Your task to perform on an android device: set default search engine in the chrome app Image 0: 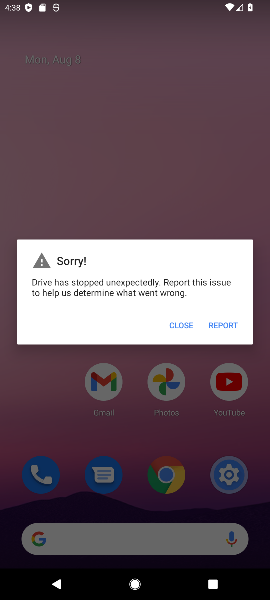
Step 0: press home button
Your task to perform on an android device: set default search engine in the chrome app Image 1: 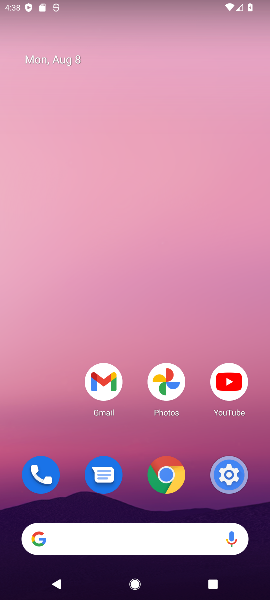
Step 1: drag from (62, 431) to (50, 181)
Your task to perform on an android device: set default search engine in the chrome app Image 2: 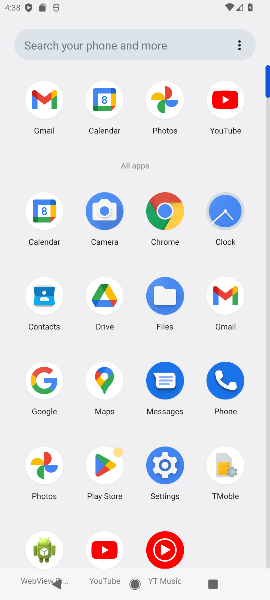
Step 2: click (159, 221)
Your task to perform on an android device: set default search engine in the chrome app Image 3: 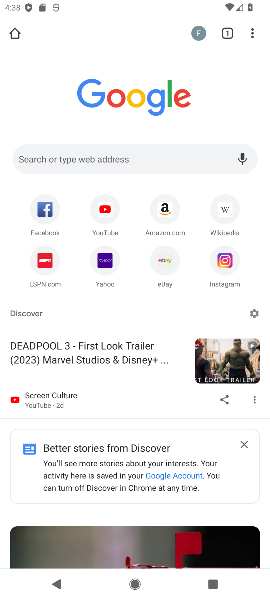
Step 3: click (251, 35)
Your task to perform on an android device: set default search engine in the chrome app Image 4: 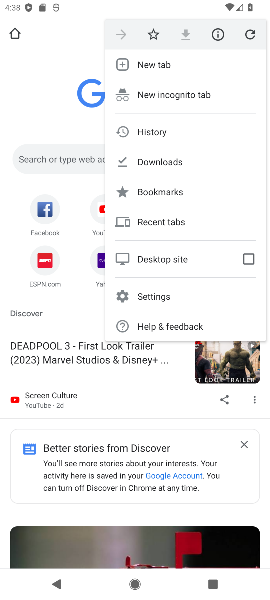
Step 4: click (195, 298)
Your task to perform on an android device: set default search engine in the chrome app Image 5: 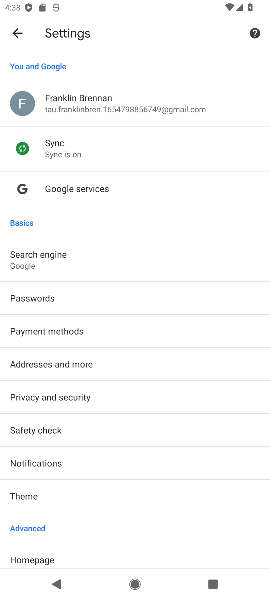
Step 5: drag from (195, 391) to (206, 305)
Your task to perform on an android device: set default search engine in the chrome app Image 6: 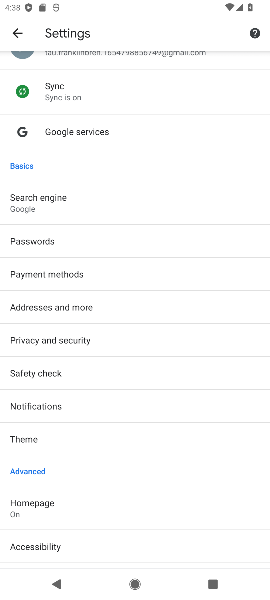
Step 6: drag from (190, 384) to (198, 313)
Your task to perform on an android device: set default search engine in the chrome app Image 7: 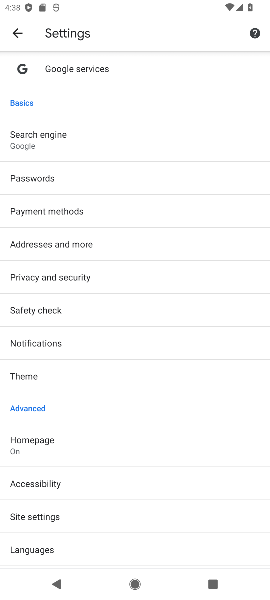
Step 7: drag from (192, 414) to (199, 313)
Your task to perform on an android device: set default search engine in the chrome app Image 8: 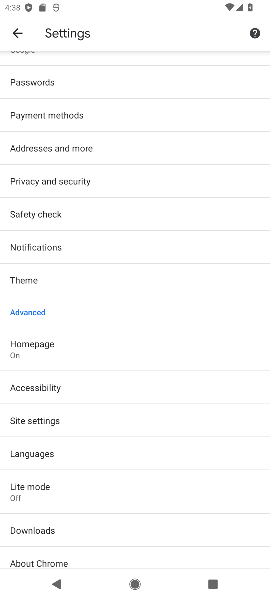
Step 8: drag from (180, 419) to (182, 312)
Your task to perform on an android device: set default search engine in the chrome app Image 9: 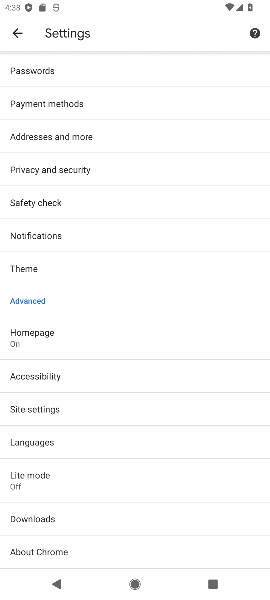
Step 9: drag from (180, 197) to (184, 246)
Your task to perform on an android device: set default search engine in the chrome app Image 10: 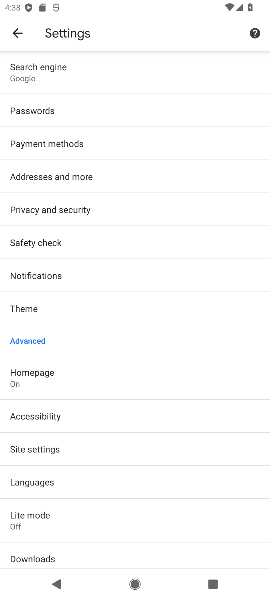
Step 10: drag from (182, 172) to (183, 245)
Your task to perform on an android device: set default search engine in the chrome app Image 11: 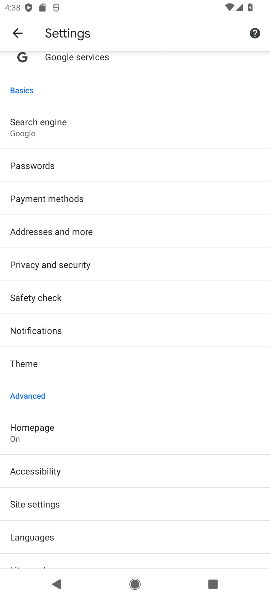
Step 11: drag from (193, 154) to (196, 280)
Your task to perform on an android device: set default search engine in the chrome app Image 12: 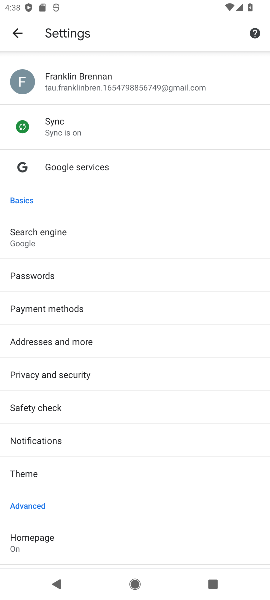
Step 12: drag from (179, 143) to (184, 281)
Your task to perform on an android device: set default search engine in the chrome app Image 13: 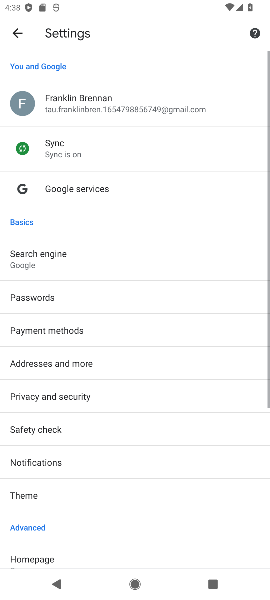
Step 13: click (75, 266)
Your task to perform on an android device: set default search engine in the chrome app Image 14: 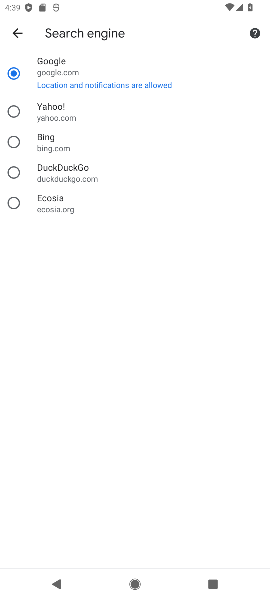
Step 14: click (50, 140)
Your task to perform on an android device: set default search engine in the chrome app Image 15: 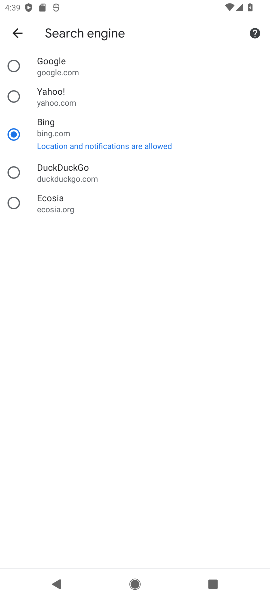
Step 15: task complete